Your task to perform on an android device: open chrome and create a bookmark for the current page Image 0: 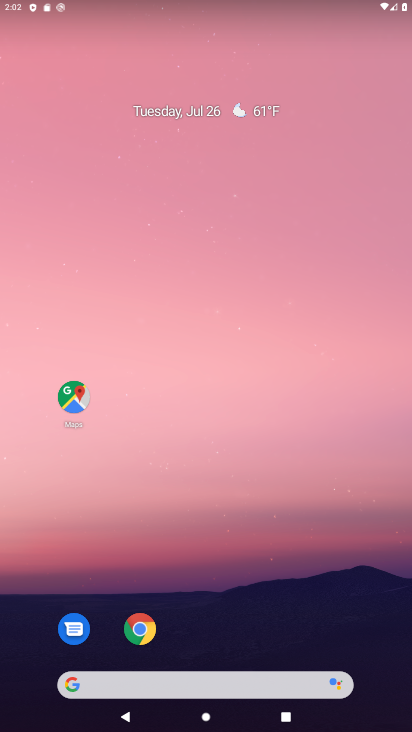
Step 0: click (135, 635)
Your task to perform on an android device: open chrome and create a bookmark for the current page Image 1: 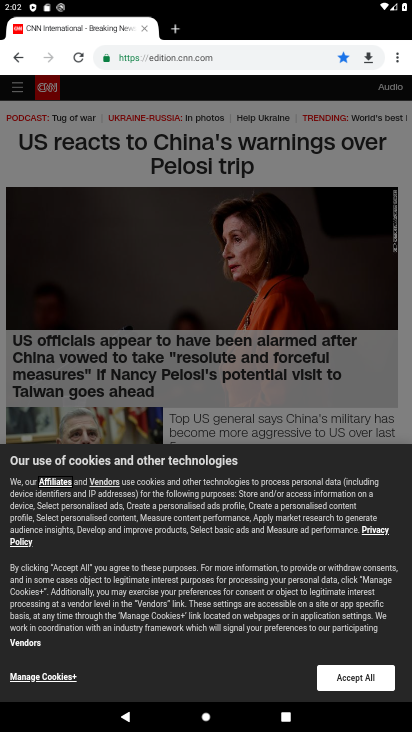
Step 1: click (399, 54)
Your task to perform on an android device: open chrome and create a bookmark for the current page Image 2: 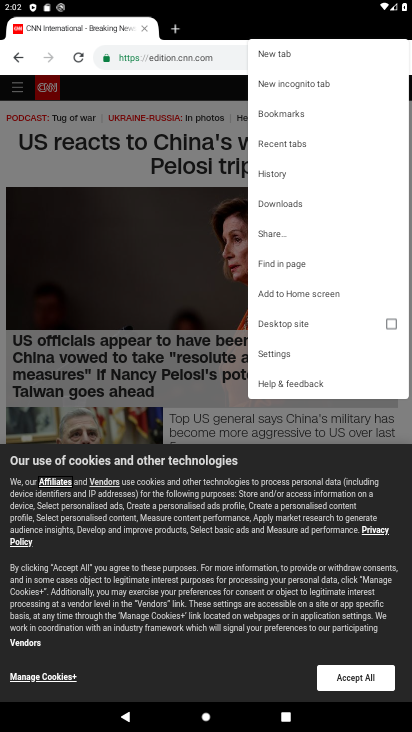
Step 2: click (279, 107)
Your task to perform on an android device: open chrome and create a bookmark for the current page Image 3: 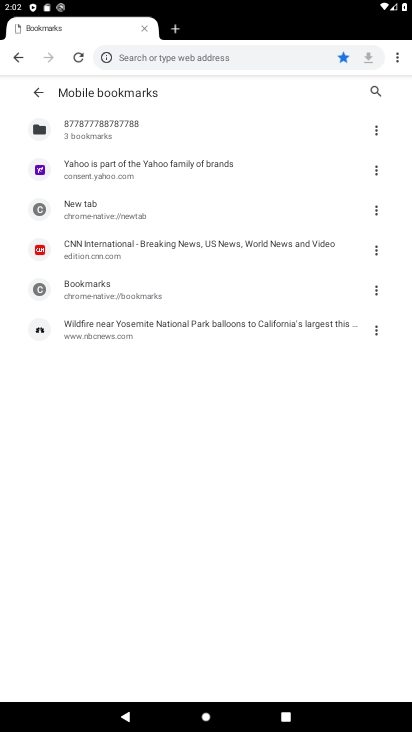
Step 3: task complete